Your task to perform on an android device: check storage Image 0: 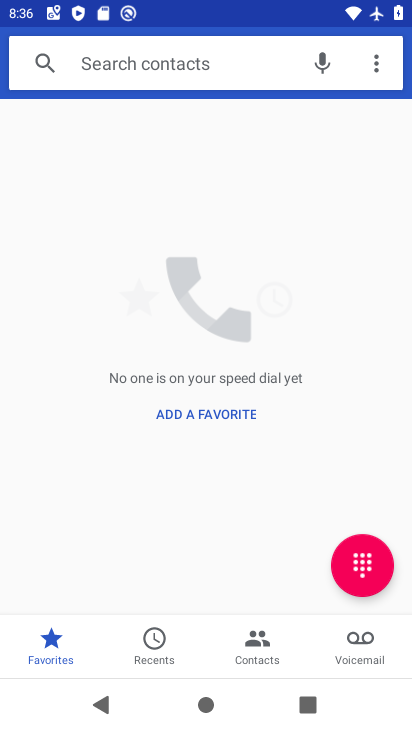
Step 0: press home button
Your task to perform on an android device: check storage Image 1: 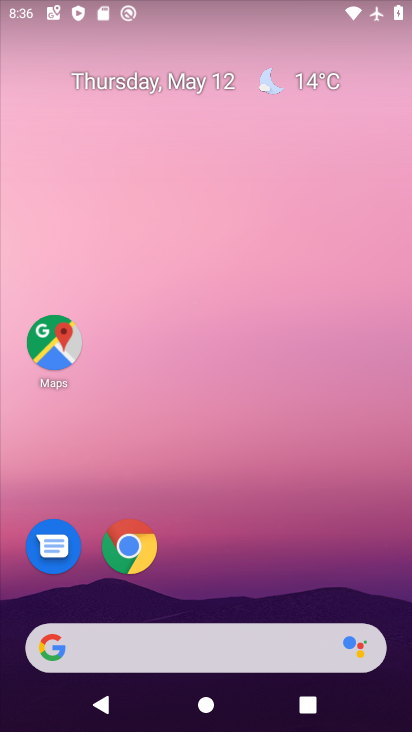
Step 1: drag from (229, 635) to (338, 63)
Your task to perform on an android device: check storage Image 2: 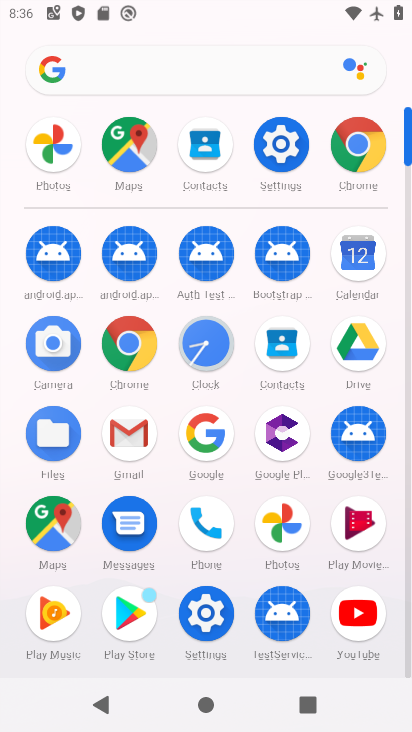
Step 2: click (277, 154)
Your task to perform on an android device: check storage Image 3: 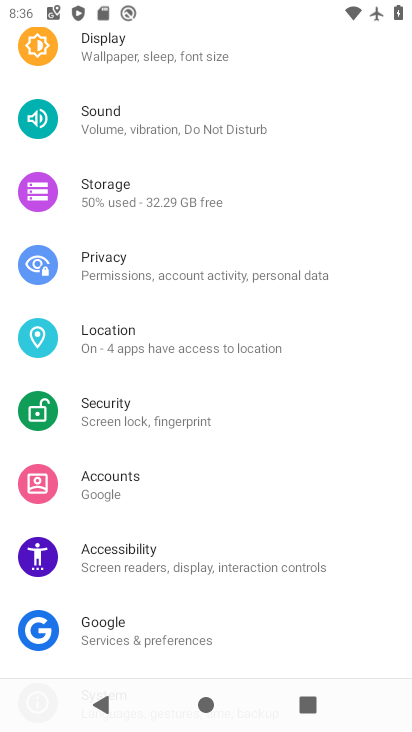
Step 3: click (136, 196)
Your task to perform on an android device: check storage Image 4: 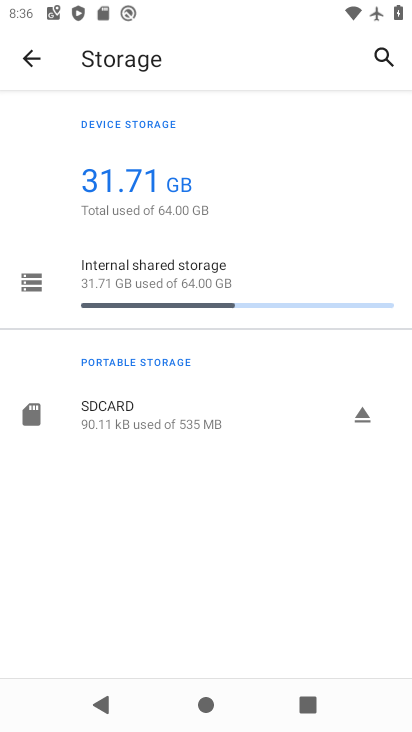
Step 4: task complete